Your task to perform on an android device: Open Google Chrome Image 0: 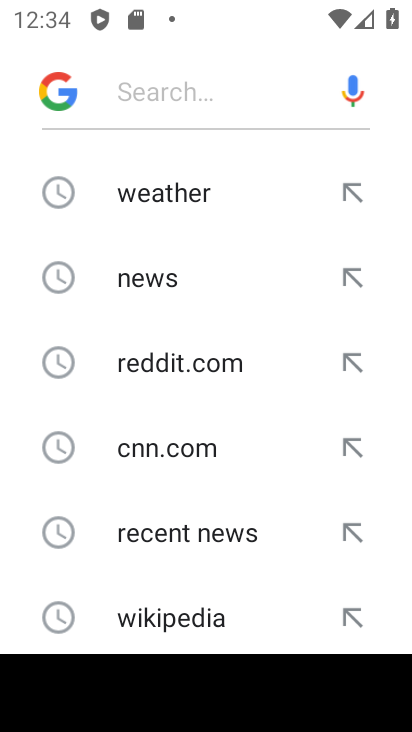
Step 0: press home button
Your task to perform on an android device: Open Google Chrome Image 1: 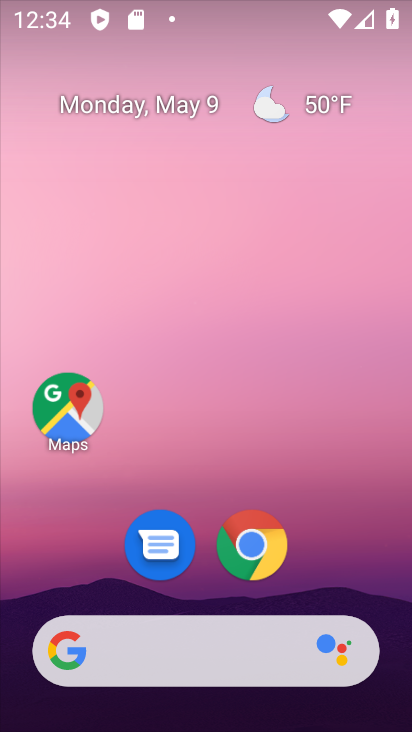
Step 1: click (243, 548)
Your task to perform on an android device: Open Google Chrome Image 2: 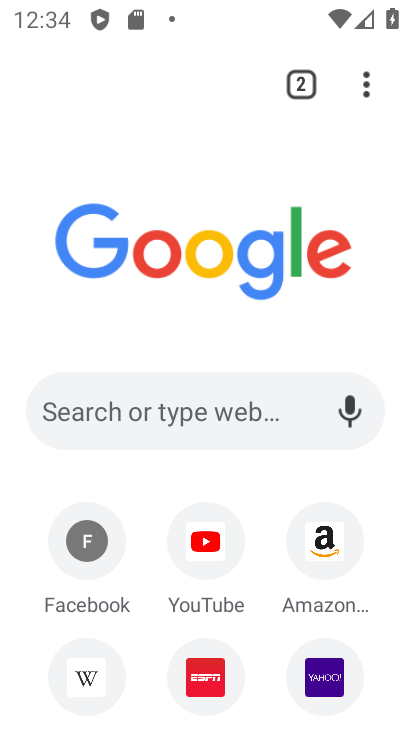
Step 2: task complete